Your task to perform on an android device: Check the weather Image 0: 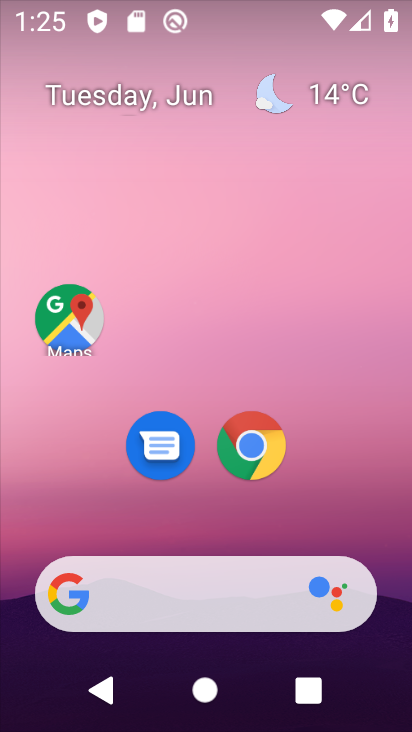
Step 0: drag from (314, 511) to (322, 57)
Your task to perform on an android device: Check the weather Image 1: 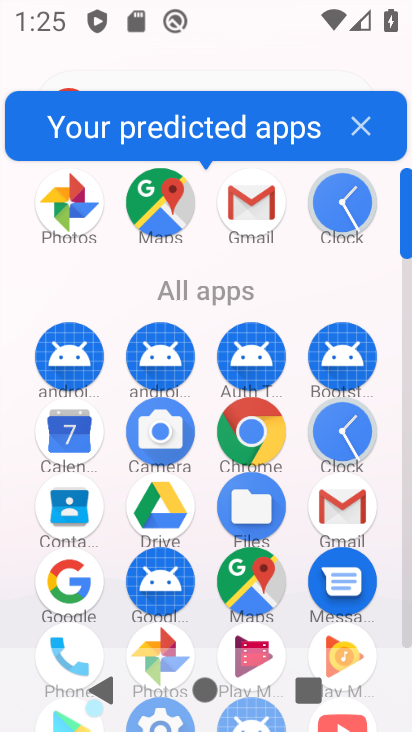
Step 1: click (257, 454)
Your task to perform on an android device: Check the weather Image 2: 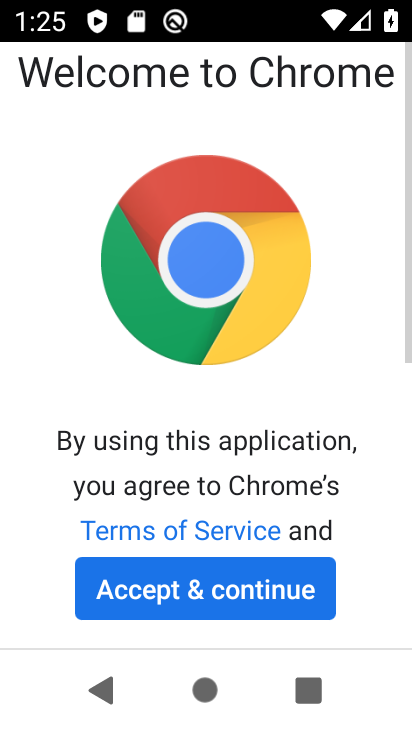
Step 2: click (246, 607)
Your task to perform on an android device: Check the weather Image 3: 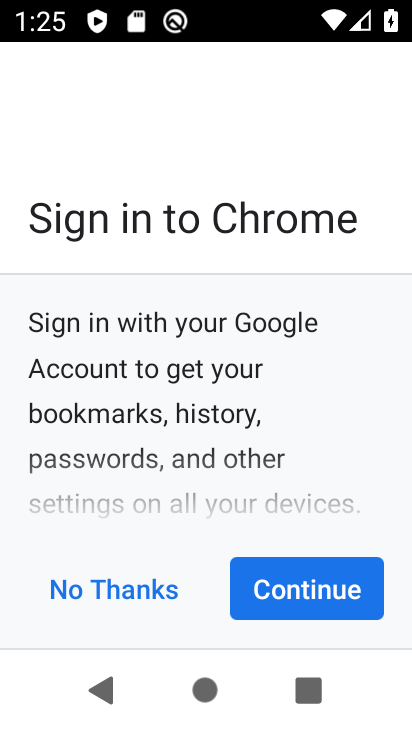
Step 3: click (275, 594)
Your task to perform on an android device: Check the weather Image 4: 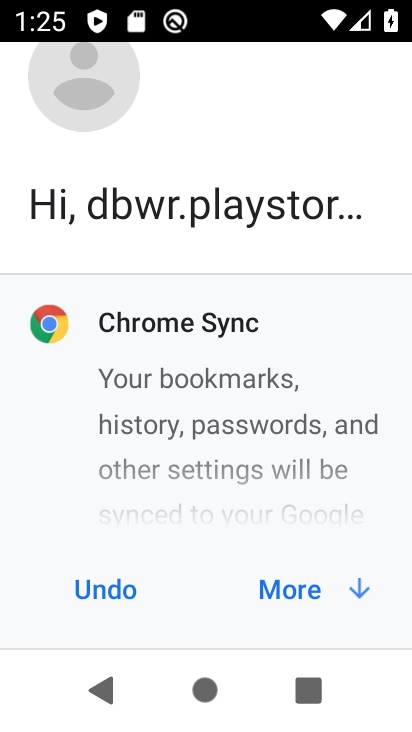
Step 4: click (332, 592)
Your task to perform on an android device: Check the weather Image 5: 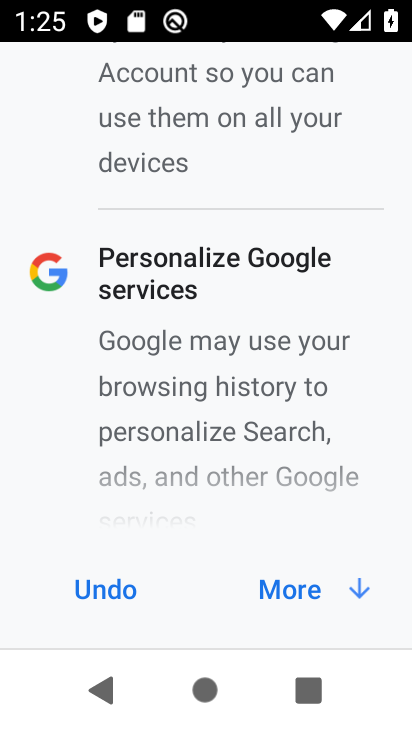
Step 5: click (332, 592)
Your task to perform on an android device: Check the weather Image 6: 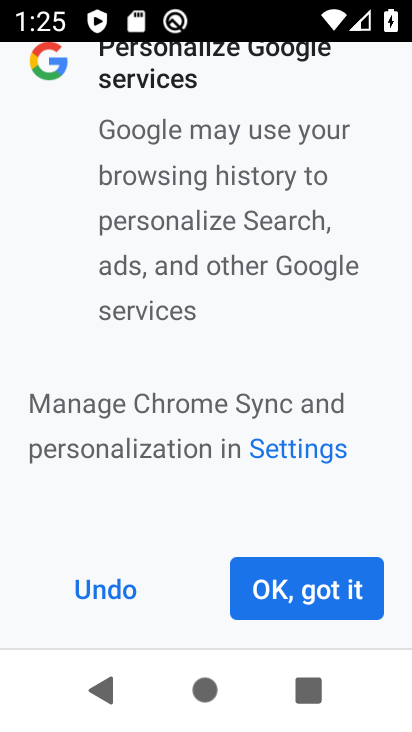
Step 6: click (332, 592)
Your task to perform on an android device: Check the weather Image 7: 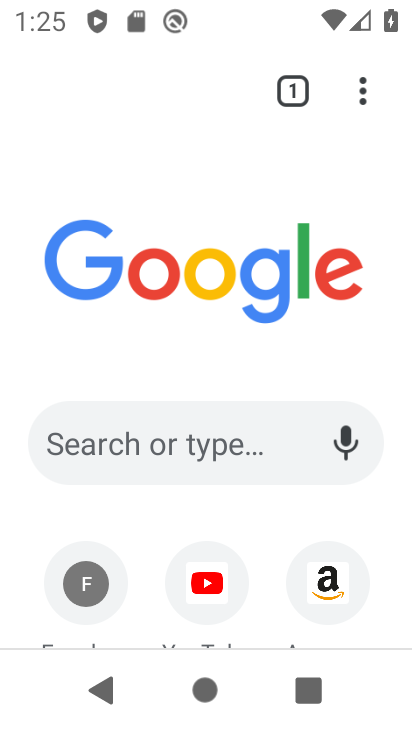
Step 7: click (202, 437)
Your task to perform on an android device: Check the weather Image 8: 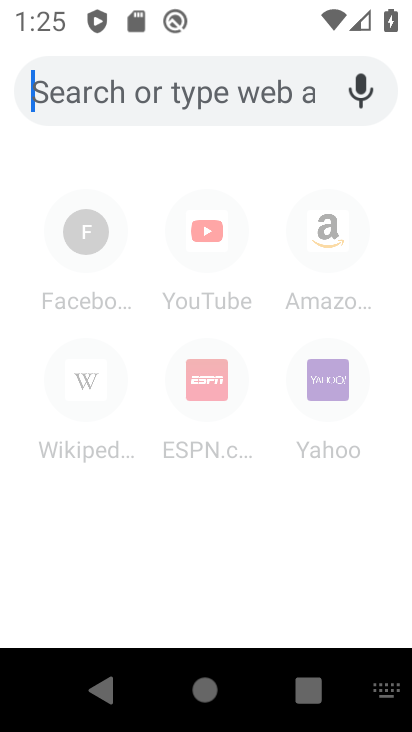
Step 8: type "check the weather "
Your task to perform on an android device: Check the weather Image 9: 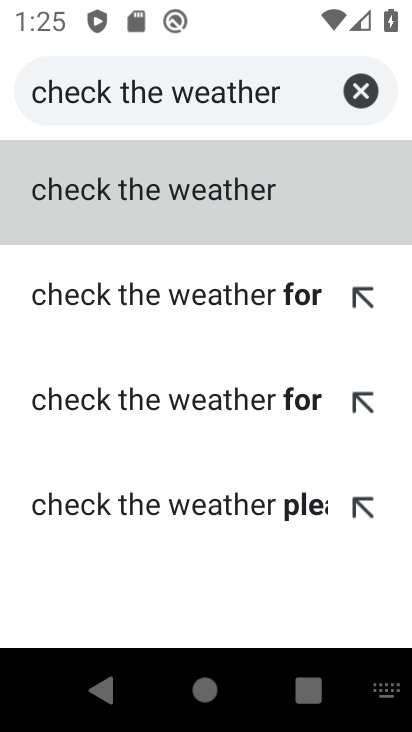
Step 9: click (174, 195)
Your task to perform on an android device: Check the weather Image 10: 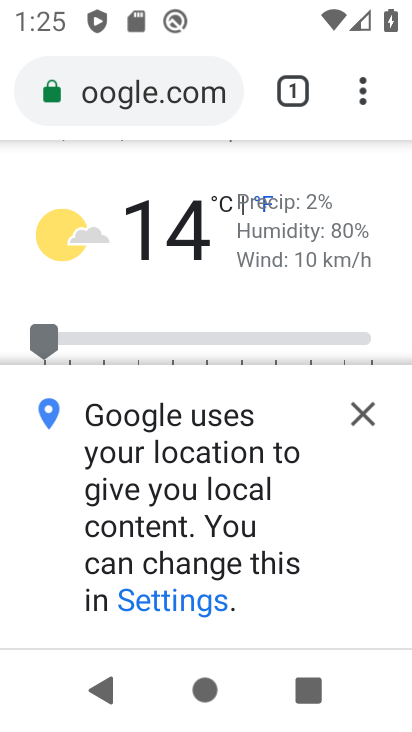
Step 10: task complete